Your task to perform on an android device: empty trash in the gmail app Image 0: 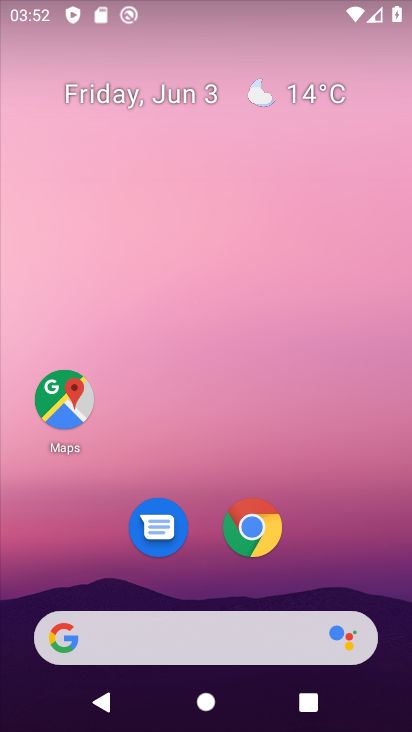
Step 0: drag from (331, 551) to (242, 82)
Your task to perform on an android device: empty trash in the gmail app Image 1: 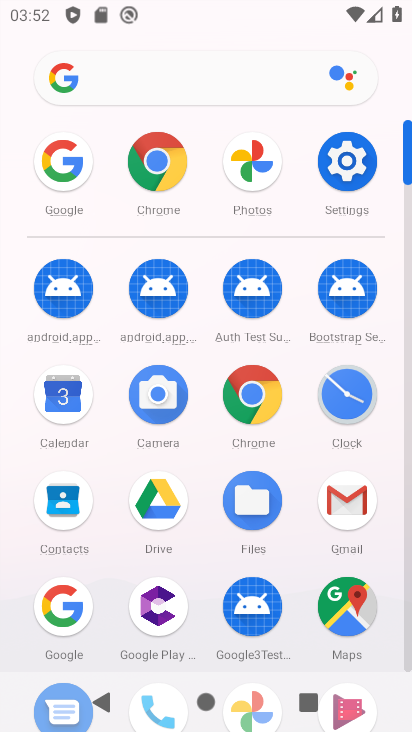
Step 1: drag from (299, 435) to (286, 219)
Your task to perform on an android device: empty trash in the gmail app Image 2: 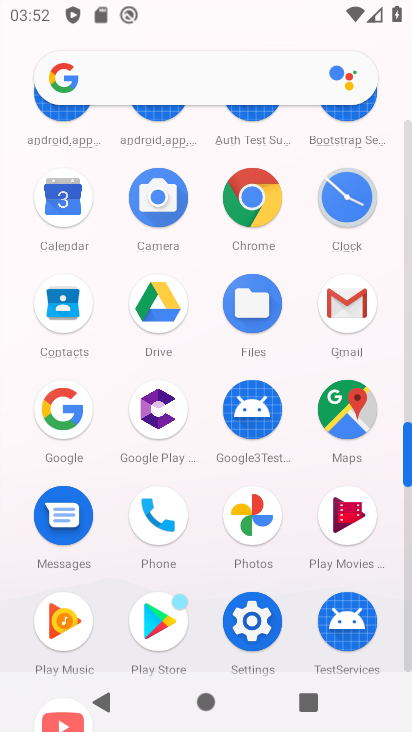
Step 2: click (350, 302)
Your task to perform on an android device: empty trash in the gmail app Image 3: 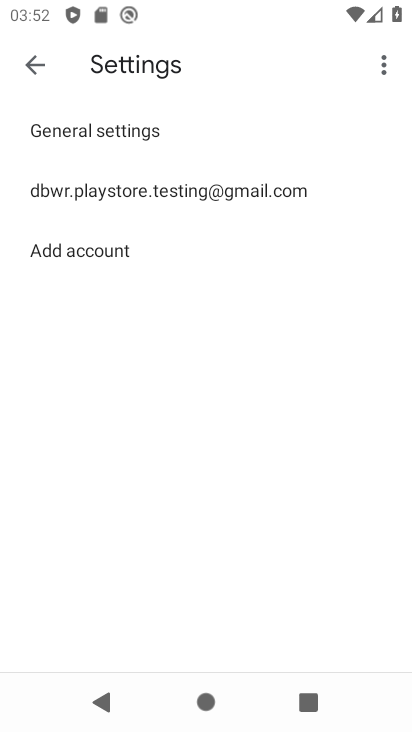
Step 3: press back button
Your task to perform on an android device: empty trash in the gmail app Image 4: 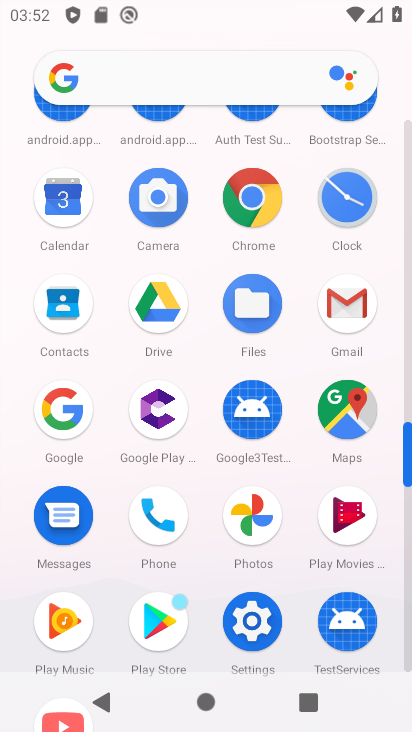
Step 4: click (344, 302)
Your task to perform on an android device: empty trash in the gmail app Image 5: 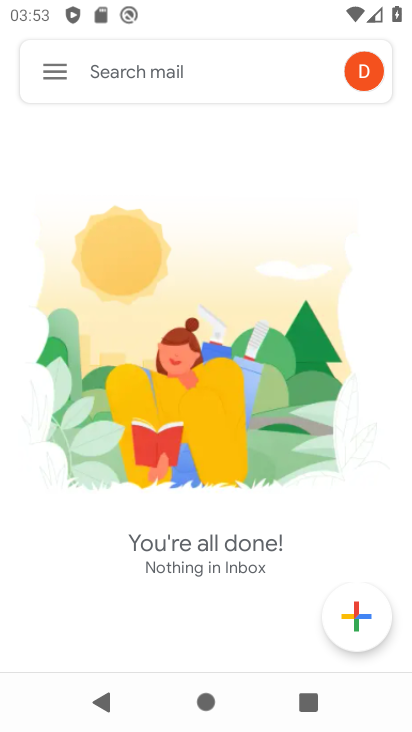
Step 5: click (57, 65)
Your task to perform on an android device: empty trash in the gmail app Image 6: 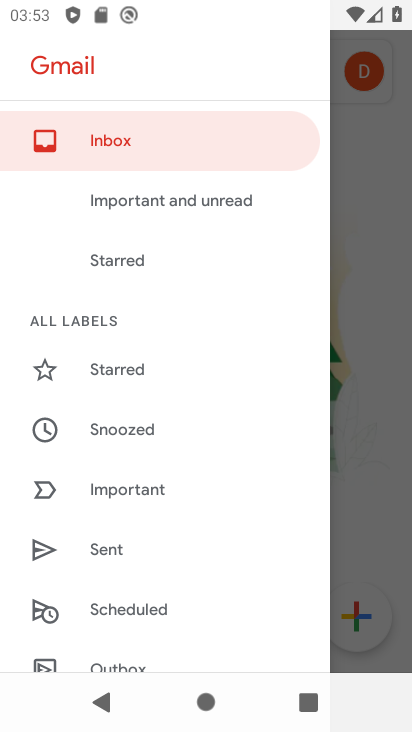
Step 6: drag from (160, 534) to (213, 402)
Your task to perform on an android device: empty trash in the gmail app Image 7: 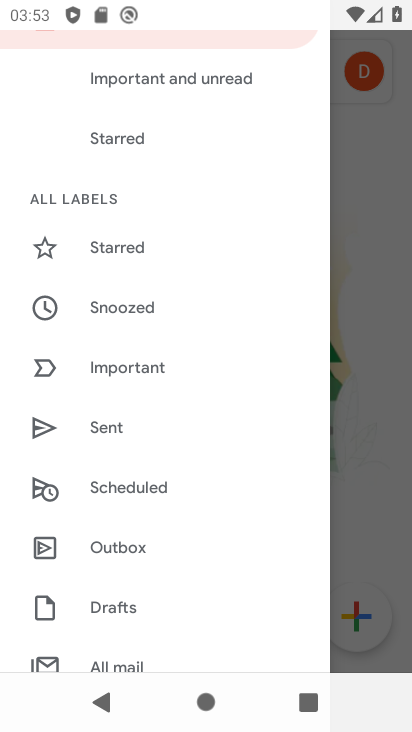
Step 7: drag from (160, 539) to (186, 421)
Your task to perform on an android device: empty trash in the gmail app Image 8: 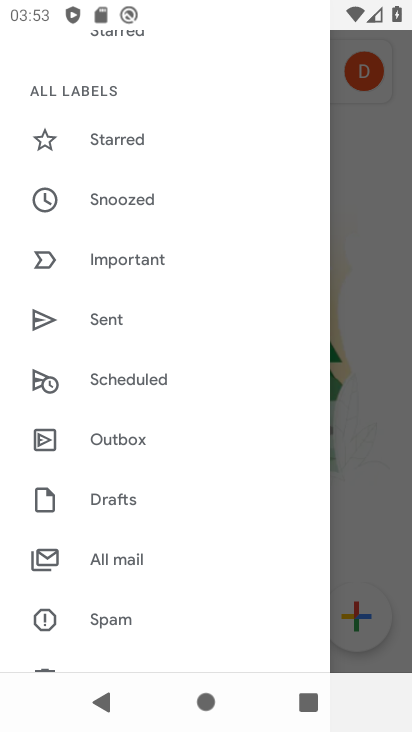
Step 8: drag from (141, 529) to (172, 425)
Your task to perform on an android device: empty trash in the gmail app Image 9: 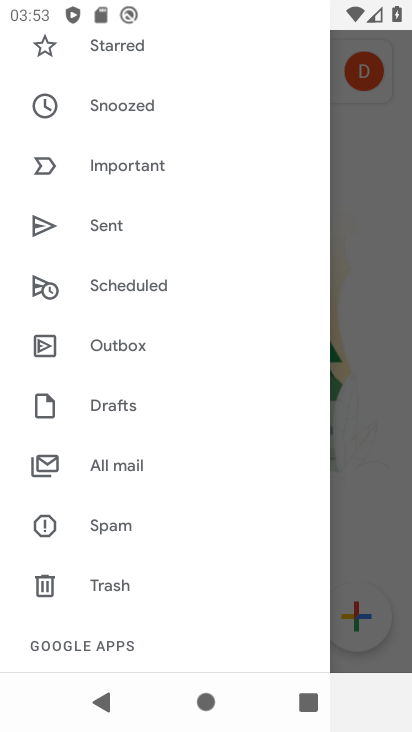
Step 9: click (124, 575)
Your task to perform on an android device: empty trash in the gmail app Image 10: 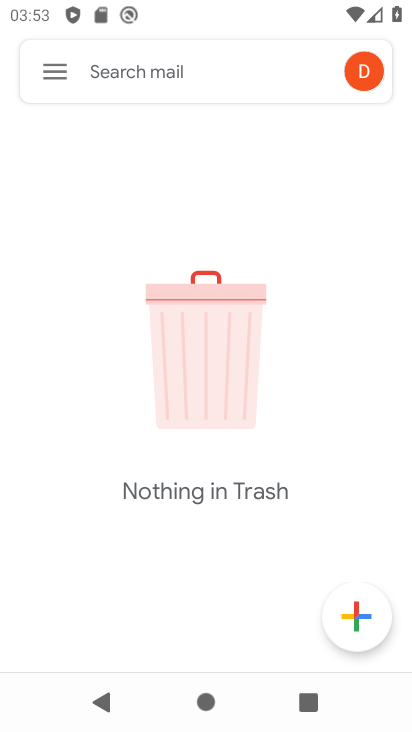
Step 10: task complete